Your task to perform on an android device: Clear all items from cart on ebay. Image 0: 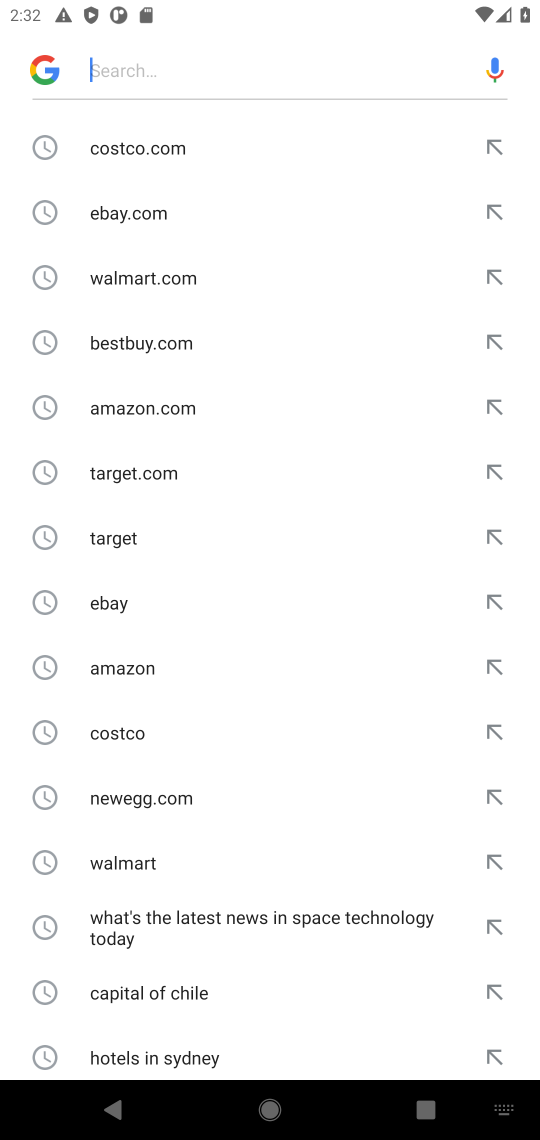
Step 0: press home button
Your task to perform on an android device: Clear all items from cart on ebay. Image 1: 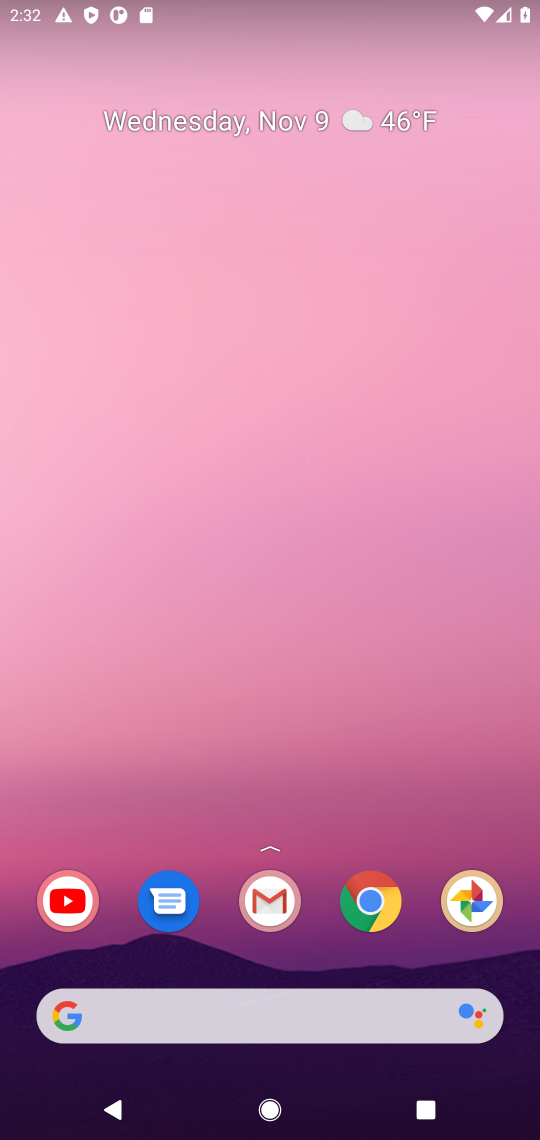
Step 1: click (383, 896)
Your task to perform on an android device: Clear all items from cart on ebay. Image 2: 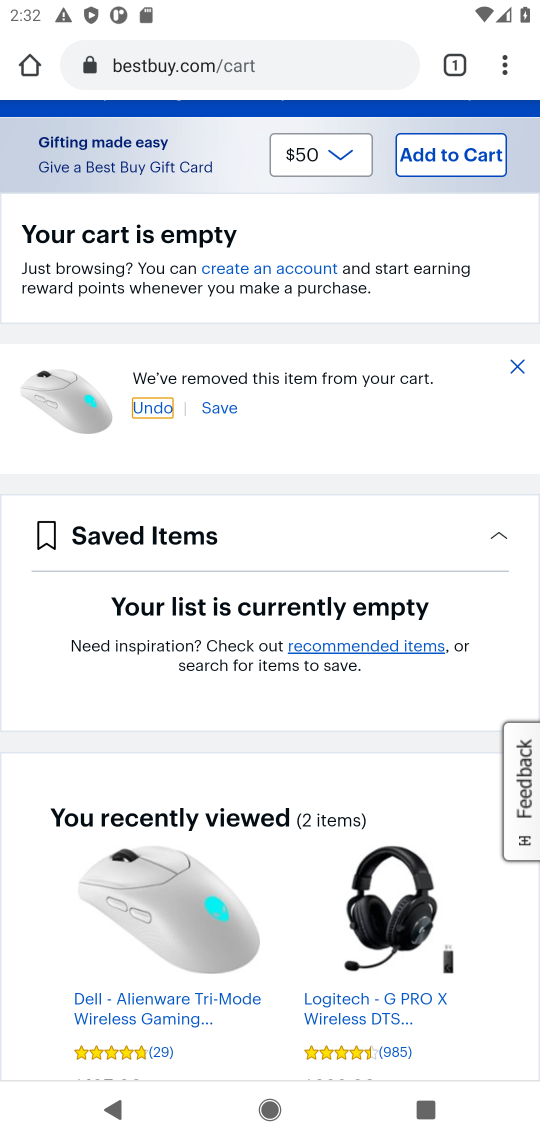
Step 2: click (33, 72)
Your task to perform on an android device: Clear all items from cart on ebay. Image 3: 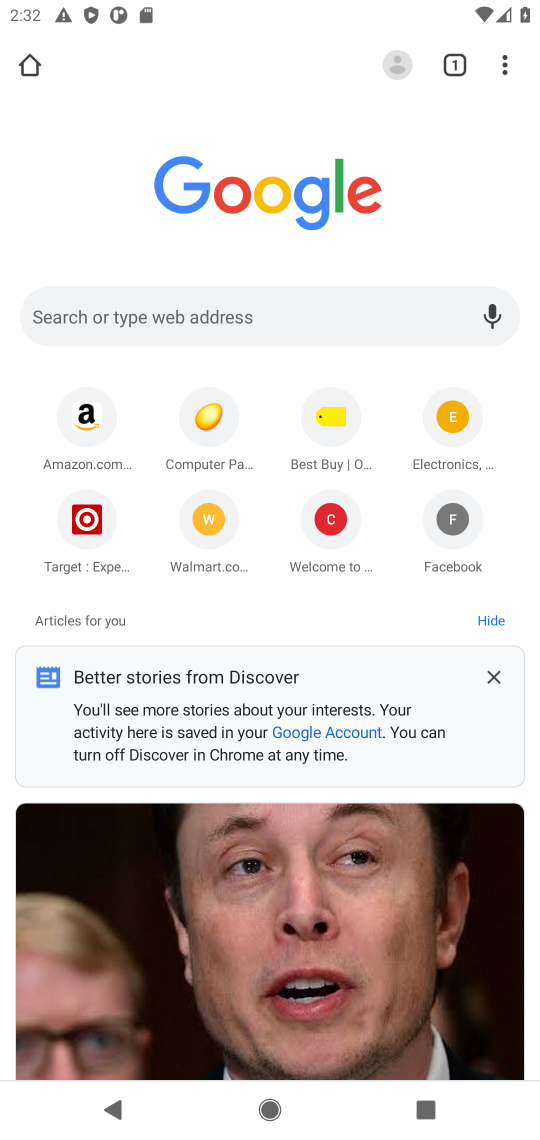
Step 3: click (172, 314)
Your task to perform on an android device: Clear all items from cart on ebay. Image 4: 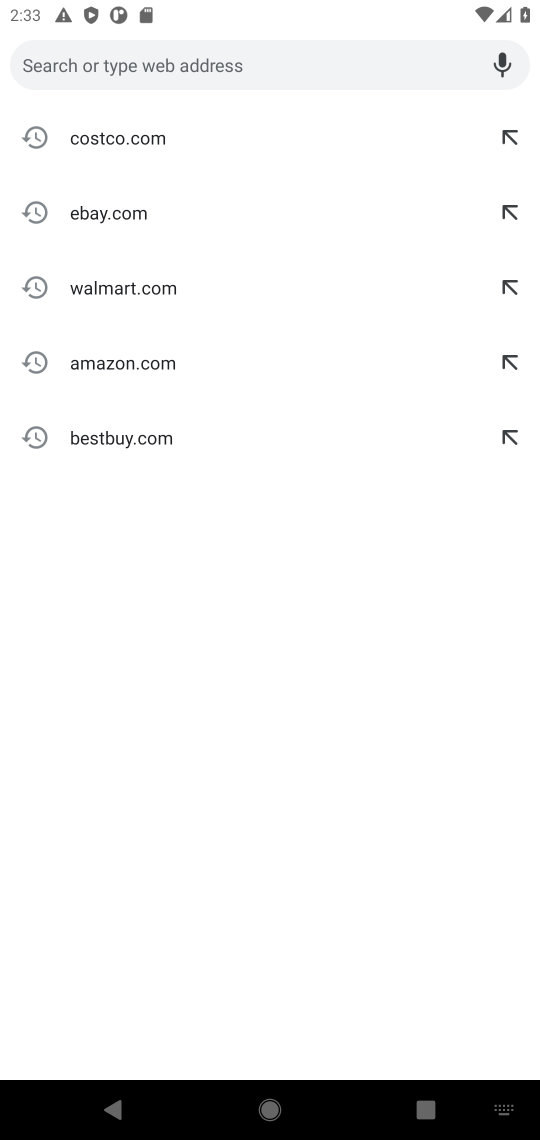
Step 4: click (114, 217)
Your task to perform on an android device: Clear all items from cart on ebay. Image 5: 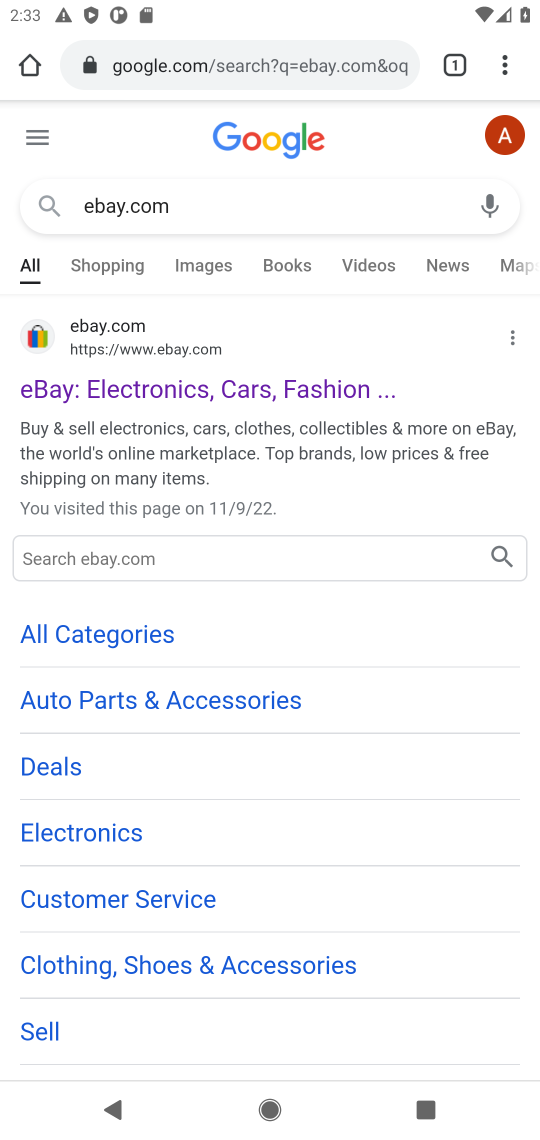
Step 5: click (162, 349)
Your task to perform on an android device: Clear all items from cart on ebay. Image 6: 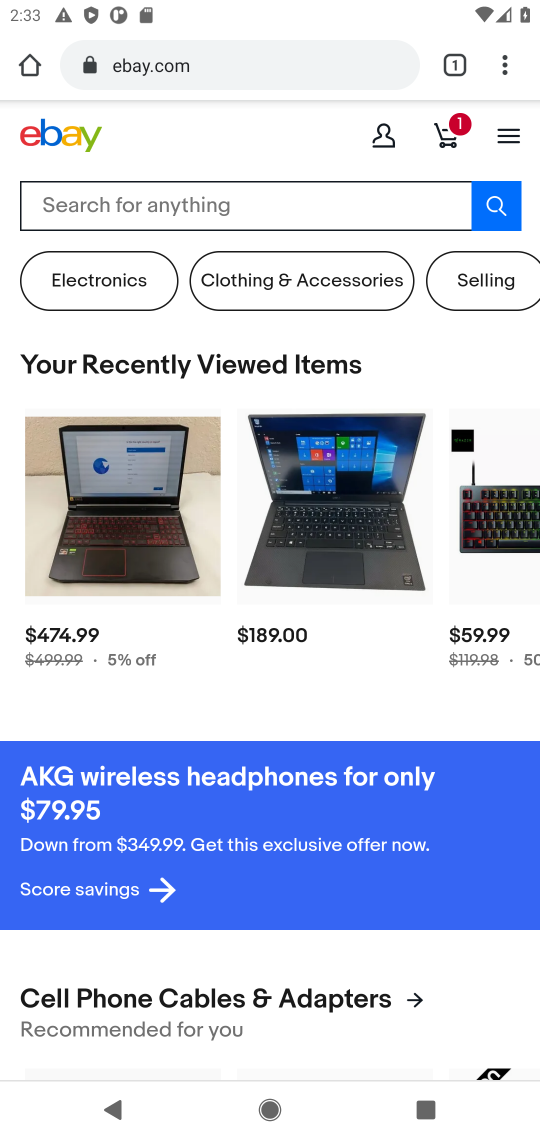
Step 6: click (451, 141)
Your task to perform on an android device: Clear all items from cart on ebay. Image 7: 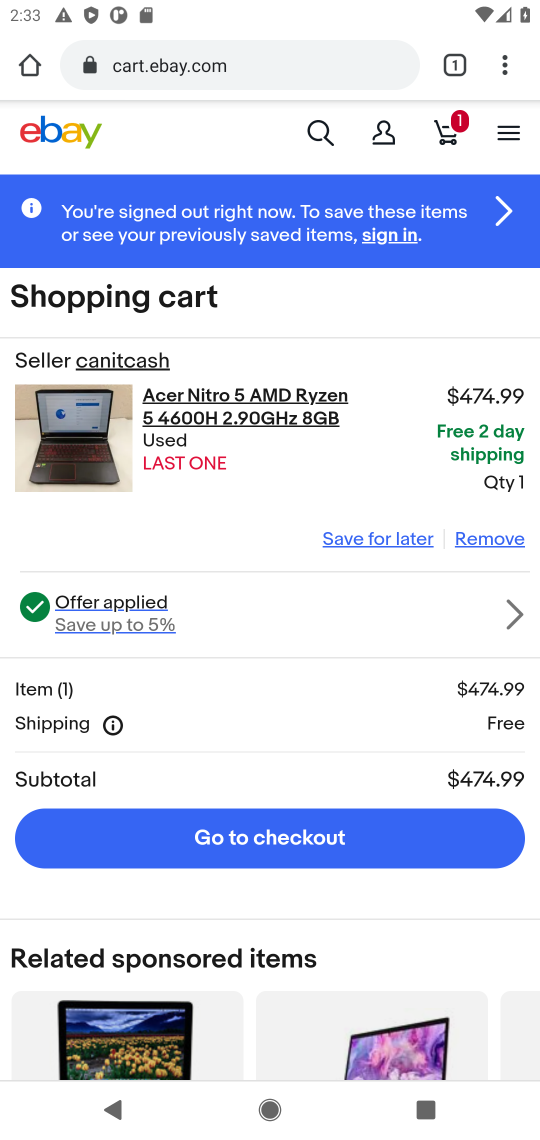
Step 7: click (487, 534)
Your task to perform on an android device: Clear all items from cart on ebay. Image 8: 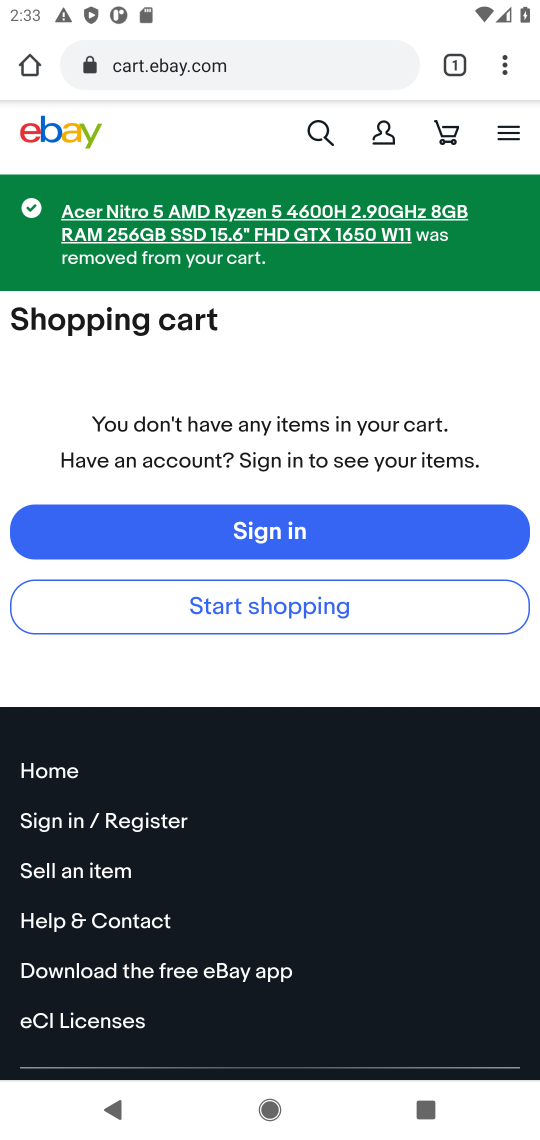
Step 8: task complete